Your task to perform on an android device: Open settings on Google Maps Image 0: 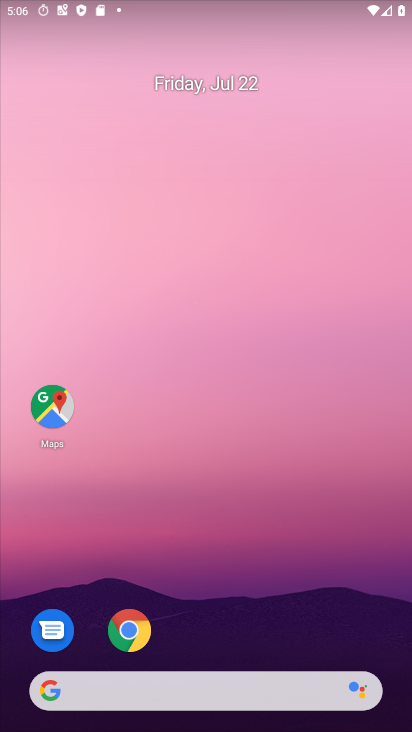
Step 0: drag from (275, 692) to (211, 18)
Your task to perform on an android device: Open settings on Google Maps Image 1: 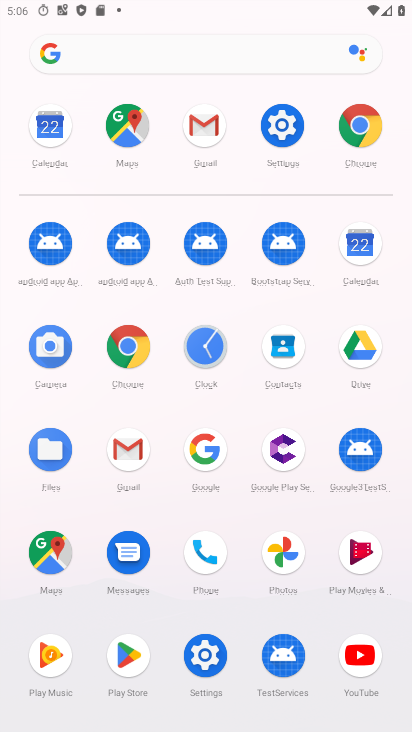
Step 1: click (34, 566)
Your task to perform on an android device: Open settings on Google Maps Image 2: 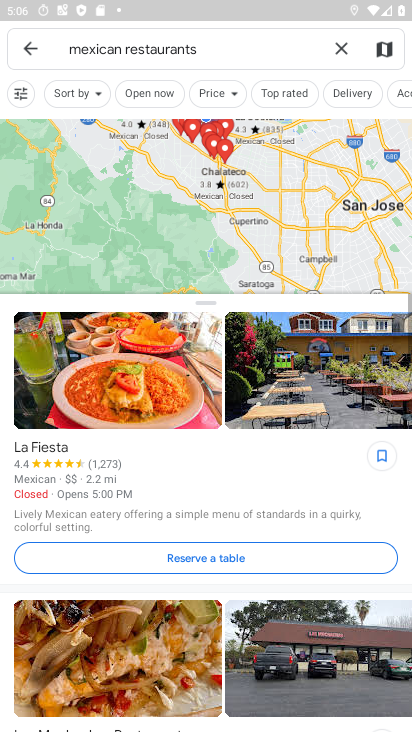
Step 2: press back button
Your task to perform on an android device: Open settings on Google Maps Image 3: 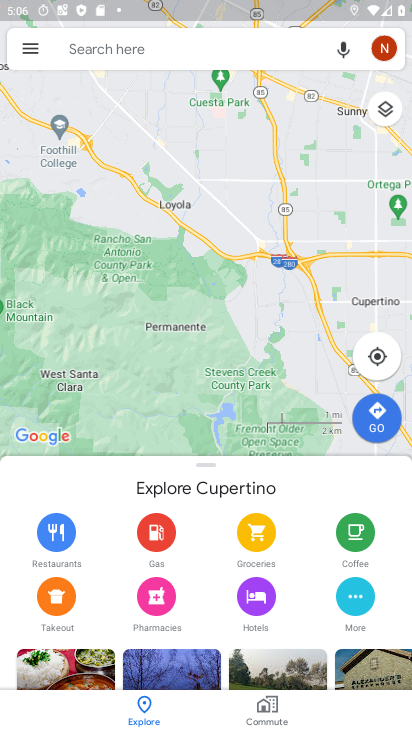
Step 3: click (34, 53)
Your task to perform on an android device: Open settings on Google Maps Image 4: 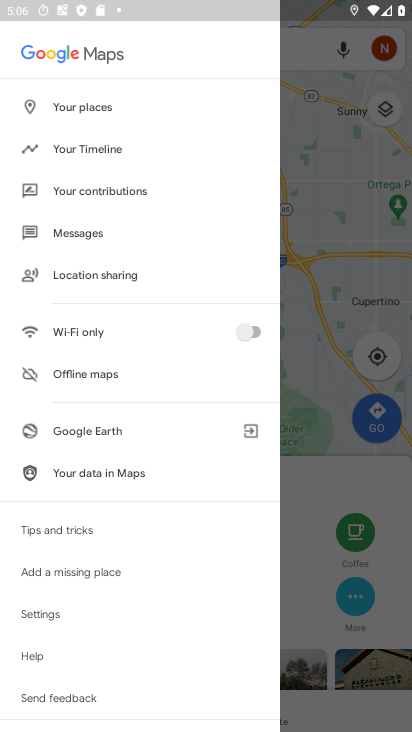
Step 4: click (58, 607)
Your task to perform on an android device: Open settings on Google Maps Image 5: 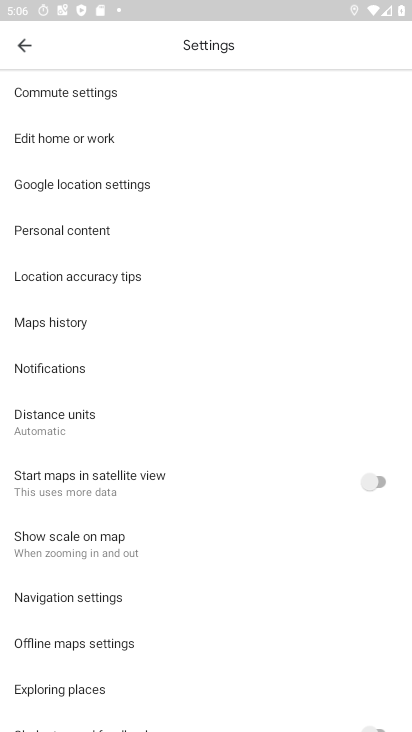
Step 5: task complete